Your task to perform on an android device: see creations saved in the google photos Image 0: 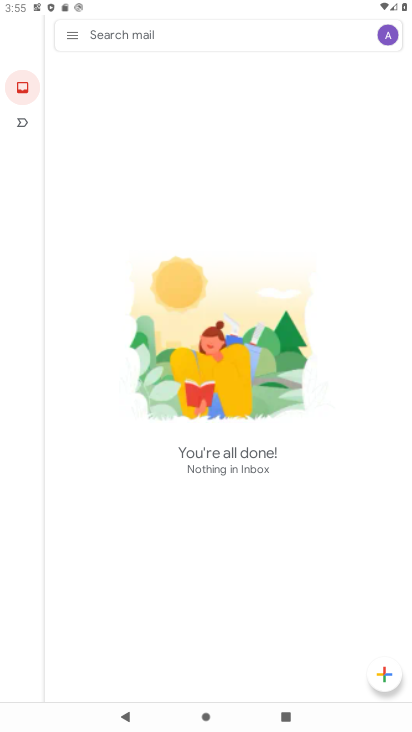
Step 0: press home button
Your task to perform on an android device: see creations saved in the google photos Image 1: 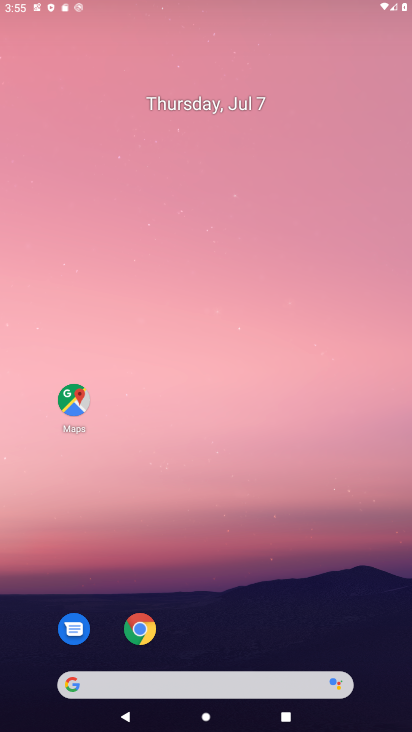
Step 1: drag from (243, 567) to (240, 233)
Your task to perform on an android device: see creations saved in the google photos Image 2: 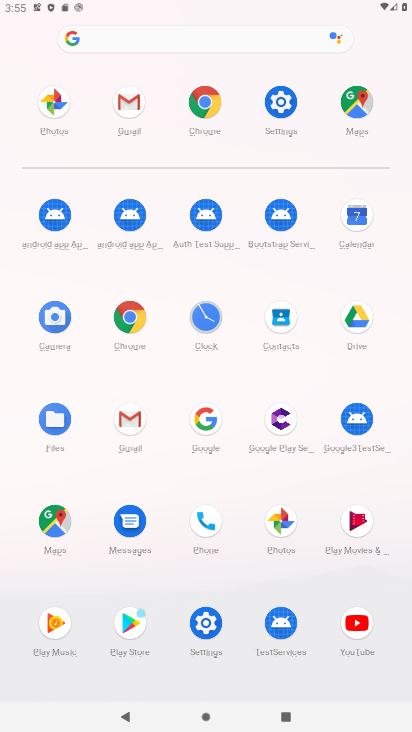
Step 2: click (271, 521)
Your task to perform on an android device: see creations saved in the google photos Image 3: 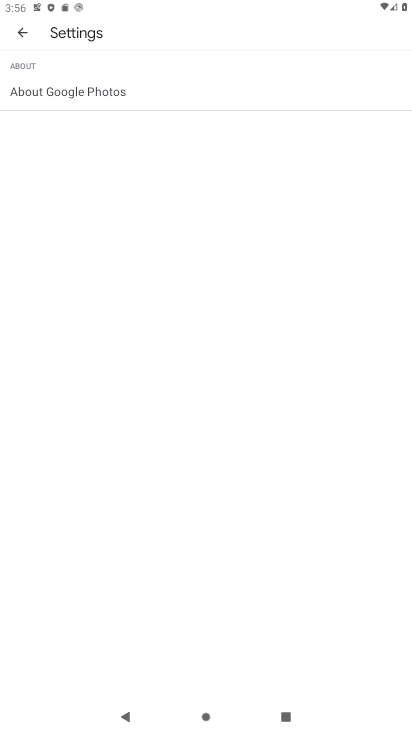
Step 3: click (35, 30)
Your task to perform on an android device: see creations saved in the google photos Image 4: 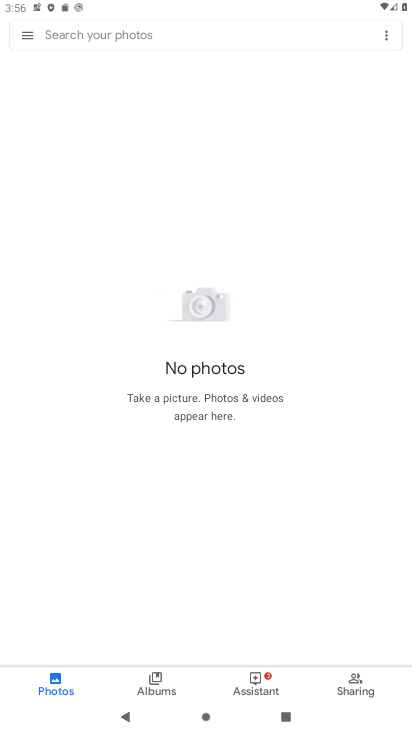
Step 4: click (135, 679)
Your task to perform on an android device: see creations saved in the google photos Image 5: 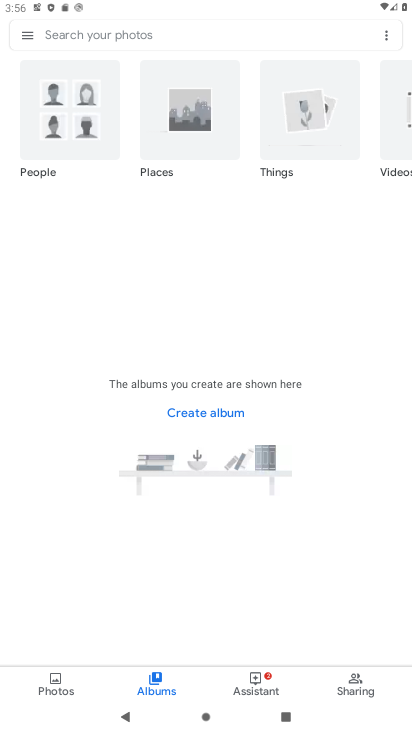
Step 5: task complete